Your task to perform on an android device: turn on wifi Image 0: 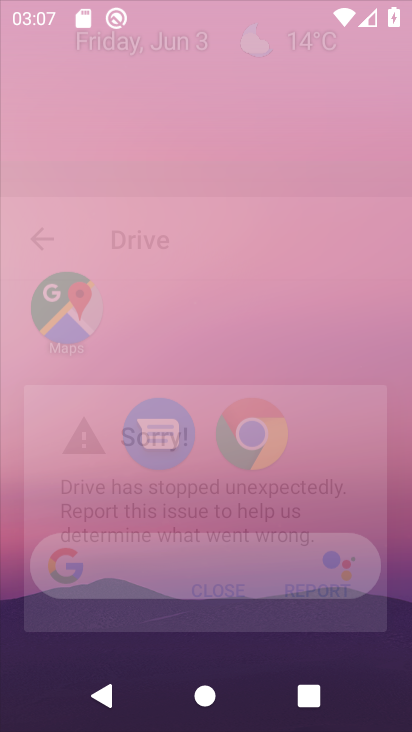
Step 0: press home button
Your task to perform on an android device: turn on wifi Image 1: 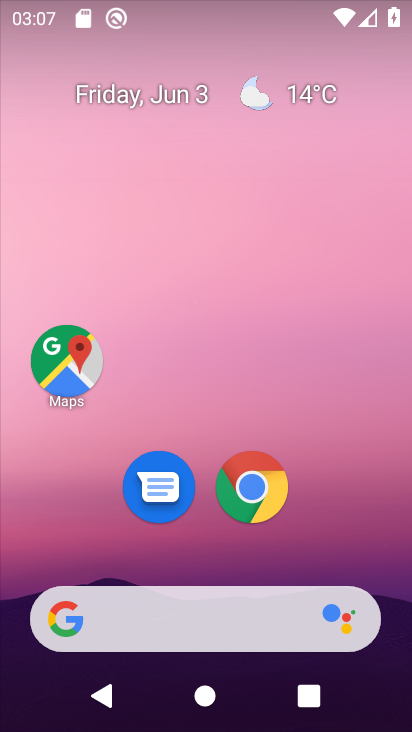
Step 1: drag from (294, 481) to (252, 13)
Your task to perform on an android device: turn on wifi Image 2: 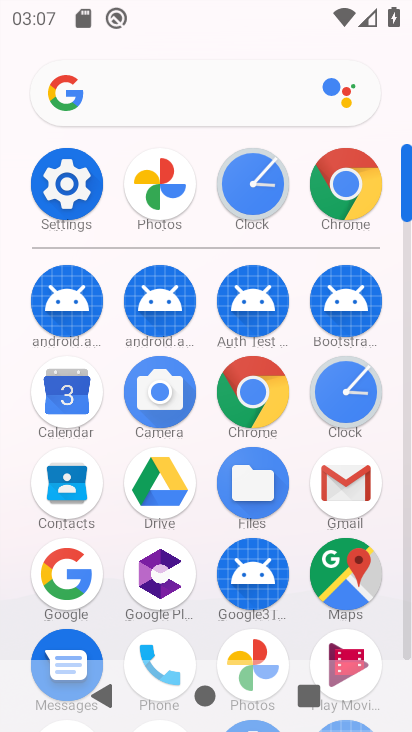
Step 2: click (67, 202)
Your task to perform on an android device: turn on wifi Image 3: 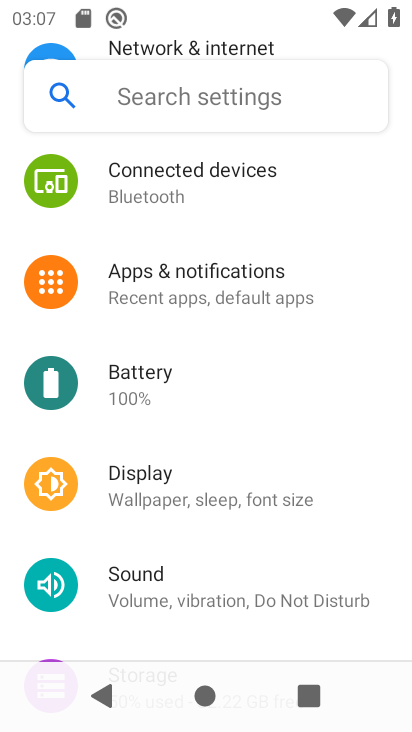
Step 3: drag from (291, 209) to (277, 618)
Your task to perform on an android device: turn on wifi Image 4: 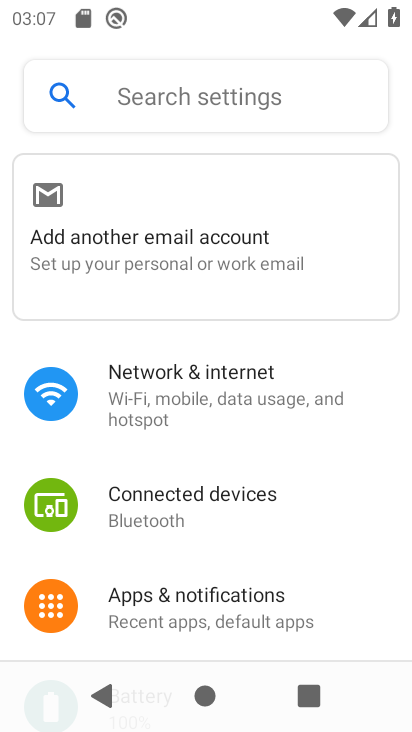
Step 4: click (209, 384)
Your task to perform on an android device: turn on wifi Image 5: 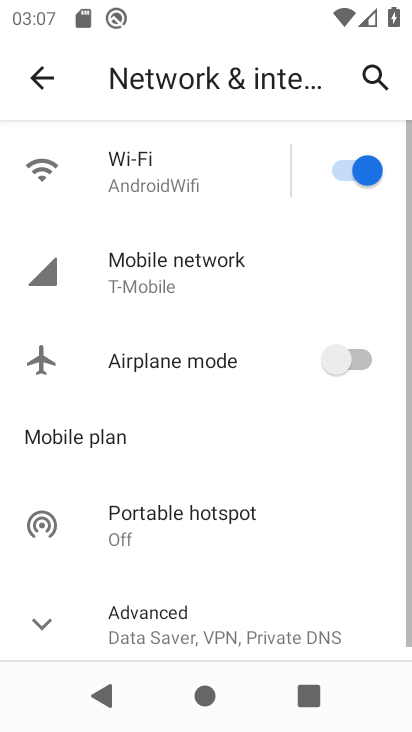
Step 5: task complete